Your task to perform on an android device: Open the phone app and click the voicemail tab. Image 0: 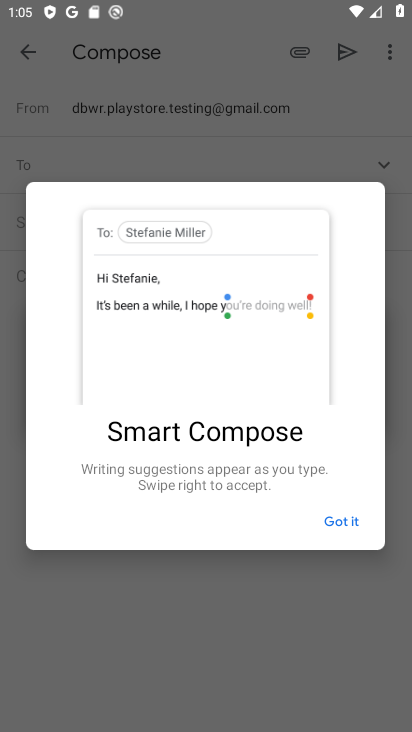
Step 0: click (219, 647)
Your task to perform on an android device: Open the phone app and click the voicemail tab. Image 1: 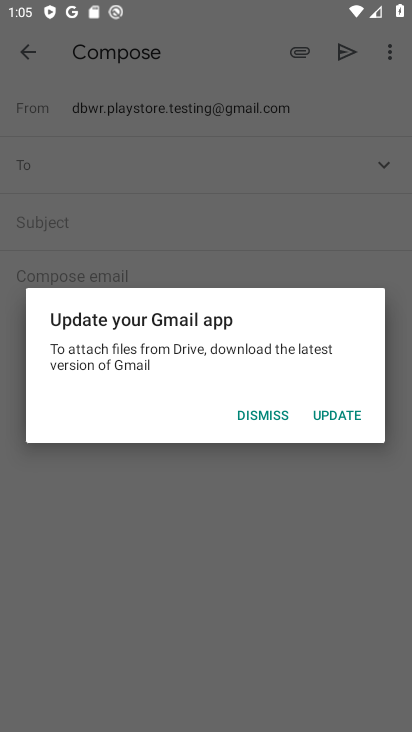
Step 1: press home button
Your task to perform on an android device: Open the phone app and click the voicemail tab. Image 2: 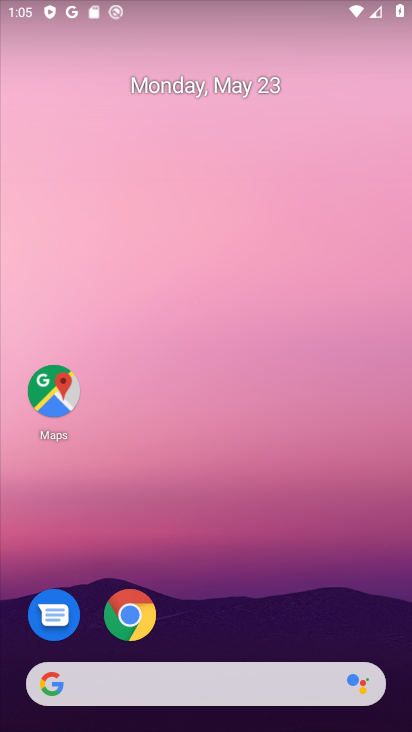
Step 2: drag from (240, 656) to (250, 135)
Your task to perform on an android device: Open the phone app and click the voicemail tab. Image 3: 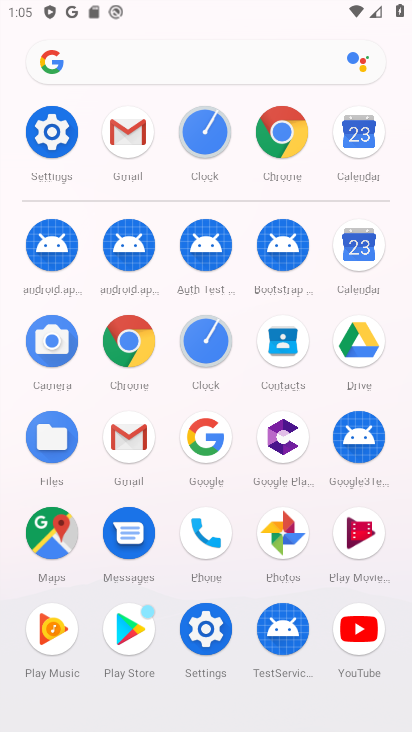
Step 3: click (207, 529)
Your task to perform on an android device: Open the phone app and click the voicemail tab. Image 4: 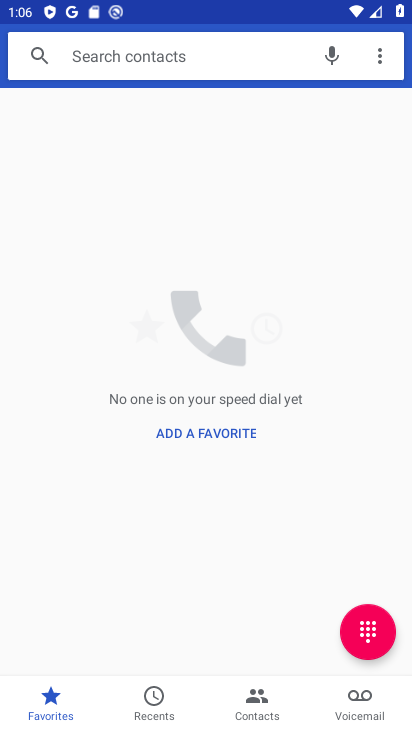
Step 4: click (336, 695)
Your task to perform on an android device: Open the phone app and click the voicemail tab. Image 5: 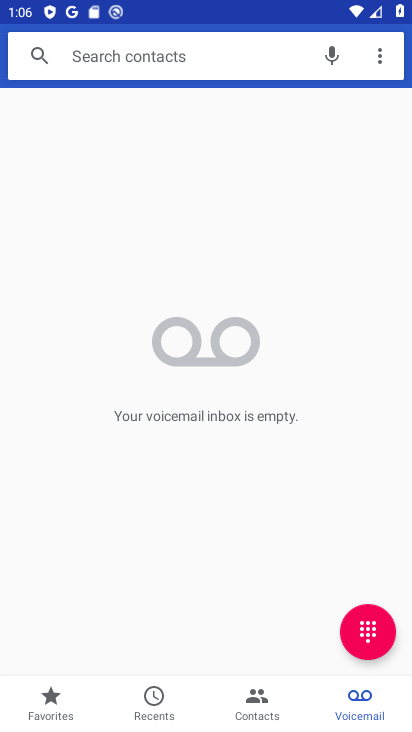
Step 5: task complete